Your task to perform on an android device: Search for logitech g pro on costco, select the first entry, and add it to the cart. Image 0: 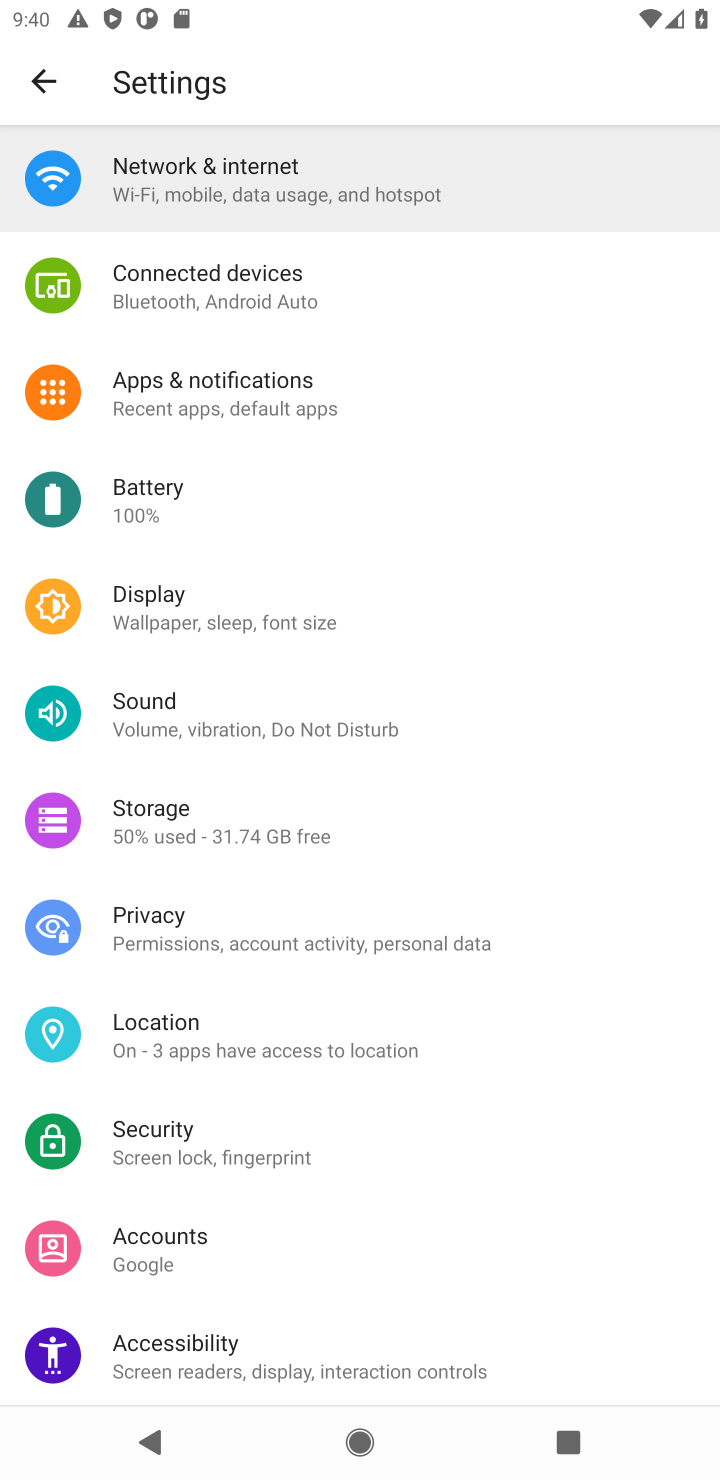
Step 0: press home button
Your task to perform on an android device: Search for logitech g pro on costco, select the first entry, and add it to the cart. Image 1: 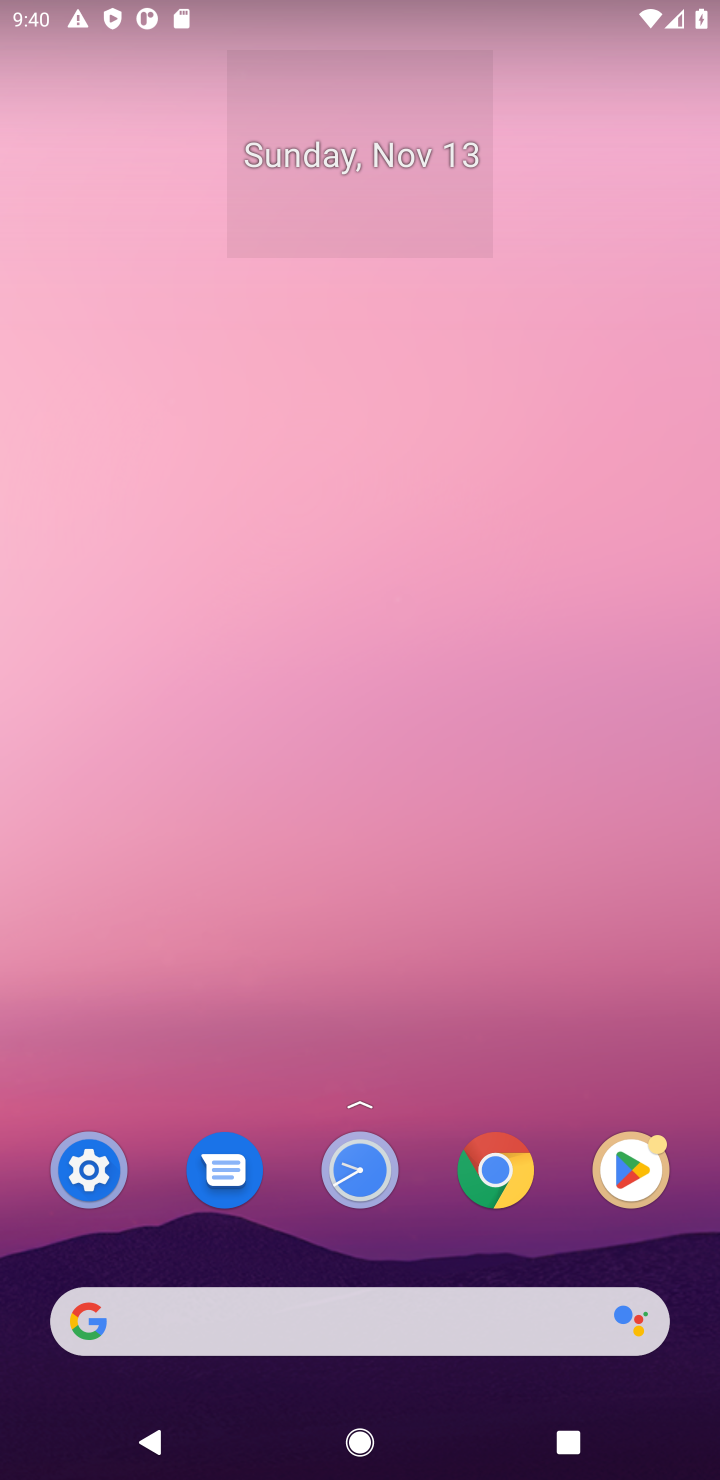
Step 1: click (283, 1349)
Your task to perform on an android device: Search for logitech g pro on costco, select the first entry, and add it to the cart. Image 2: 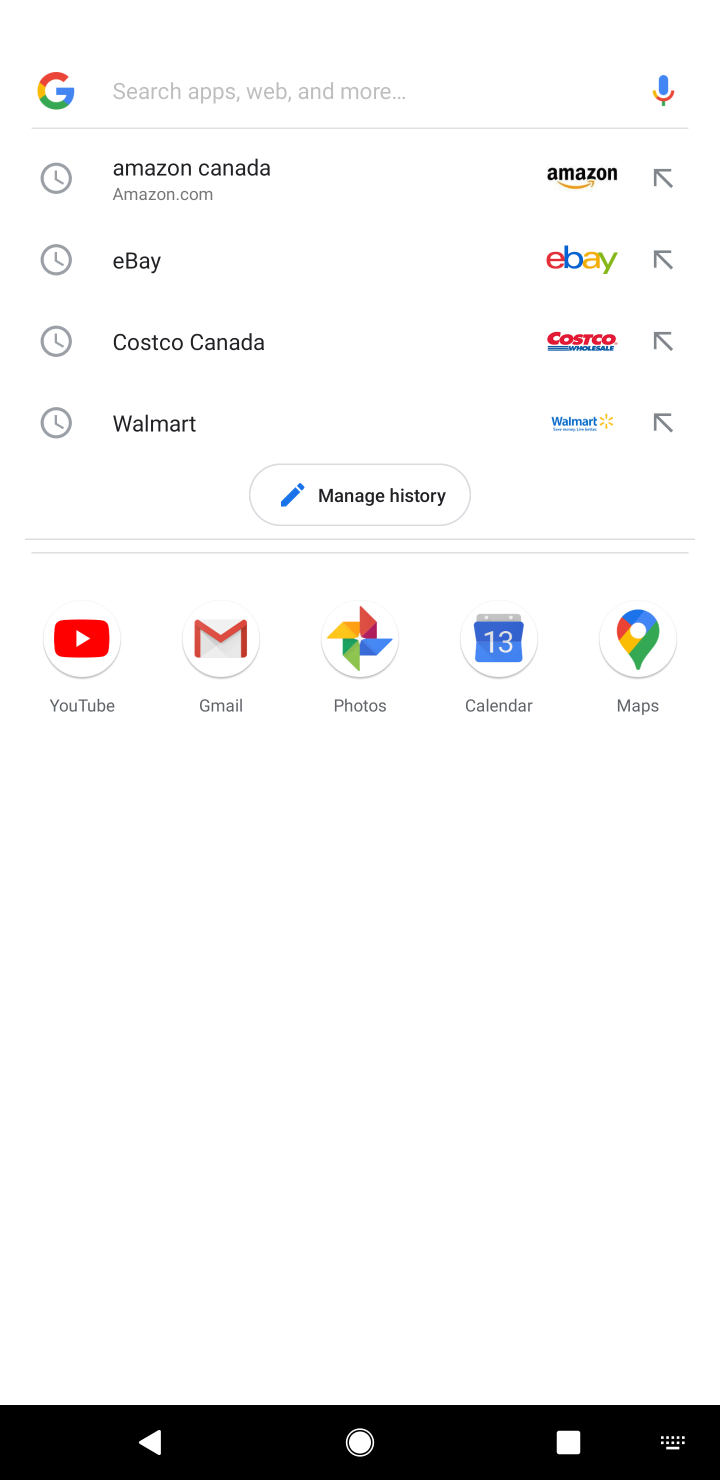
Step 2: type "costco.com"
Your task to perform on an android device: Search for logitech g pro on costco, select the first entry, and add it to the cart. Image 3: 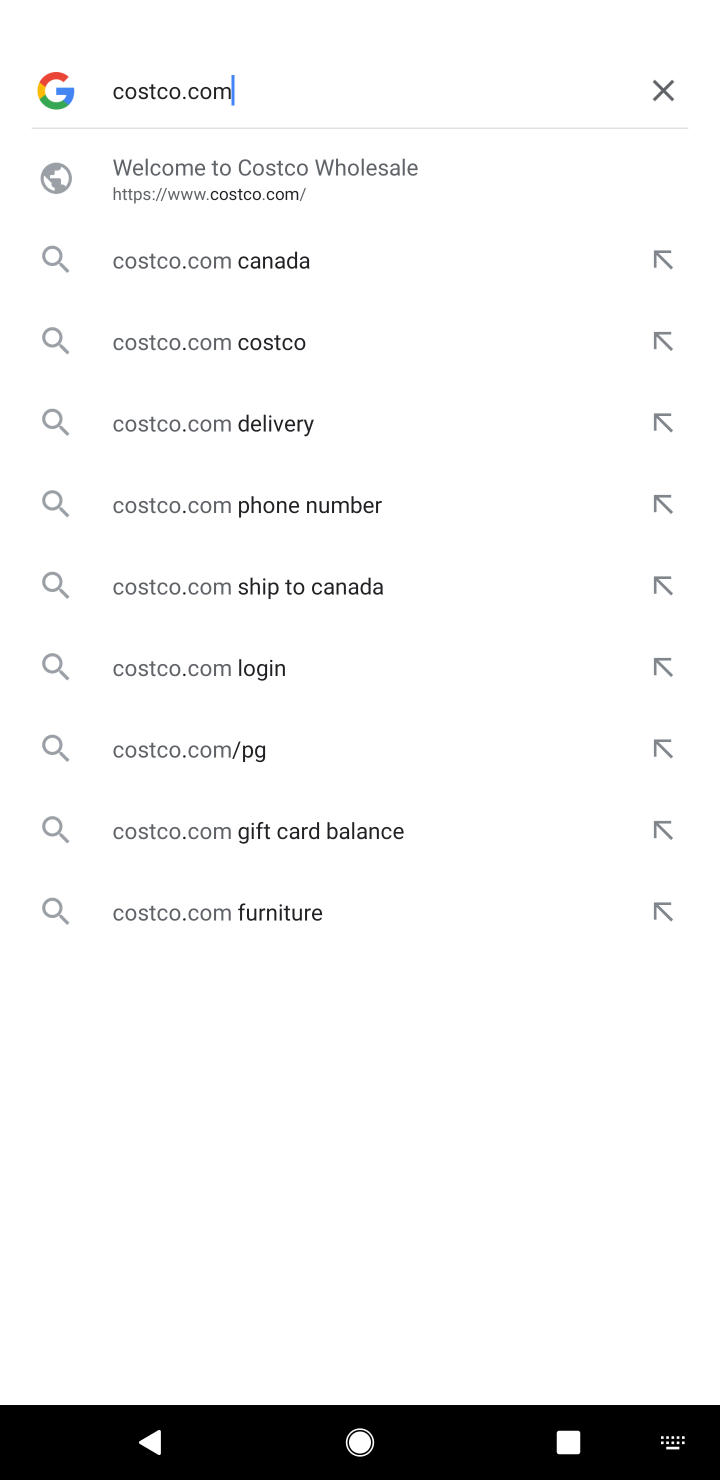
Step 3: click (341, 220)
Your task to perform on an android device: Search for logitech g pro on costco, select the first entry, and add it to the cart. Image 4: 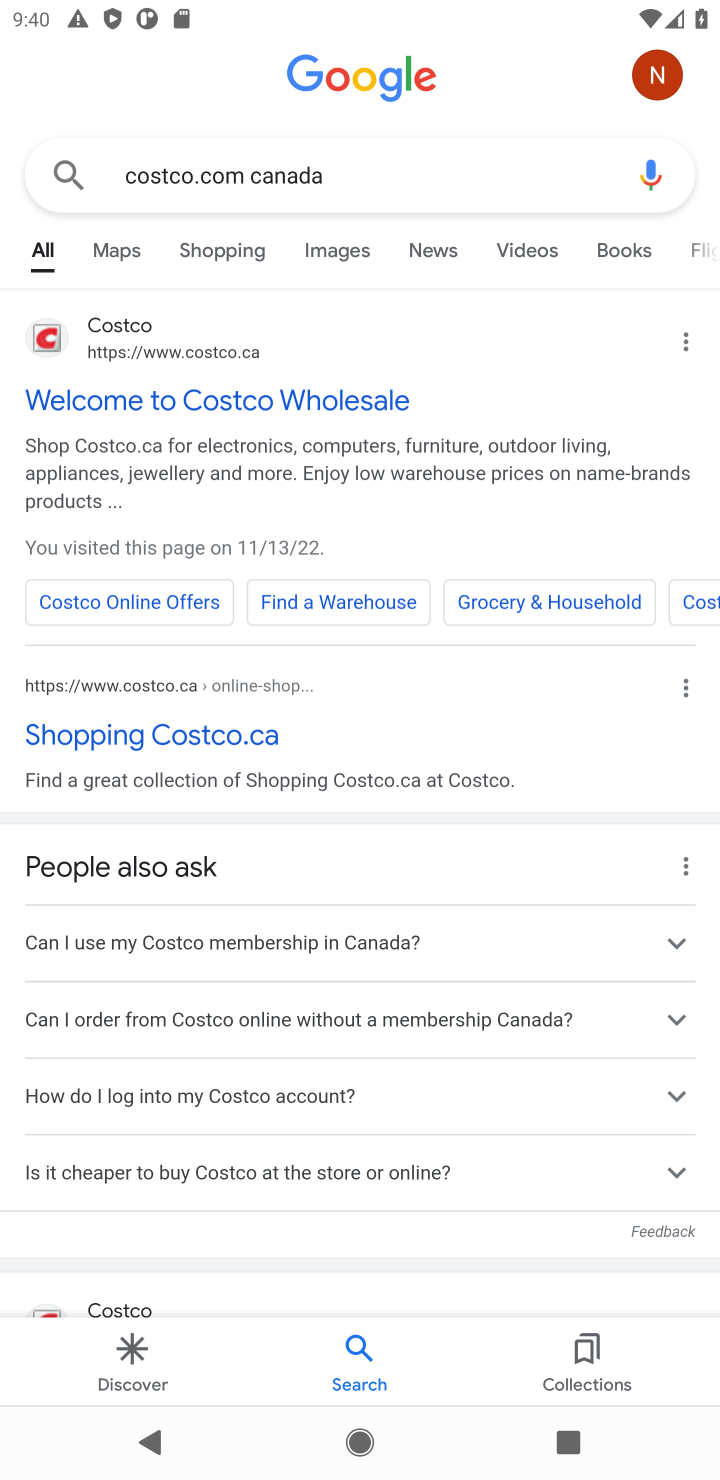
Step 4: click (226, 421)
Your task to perform on an android device: Search for logitech g pro on costco, select the first entry, and add it to the cart. Image 5: 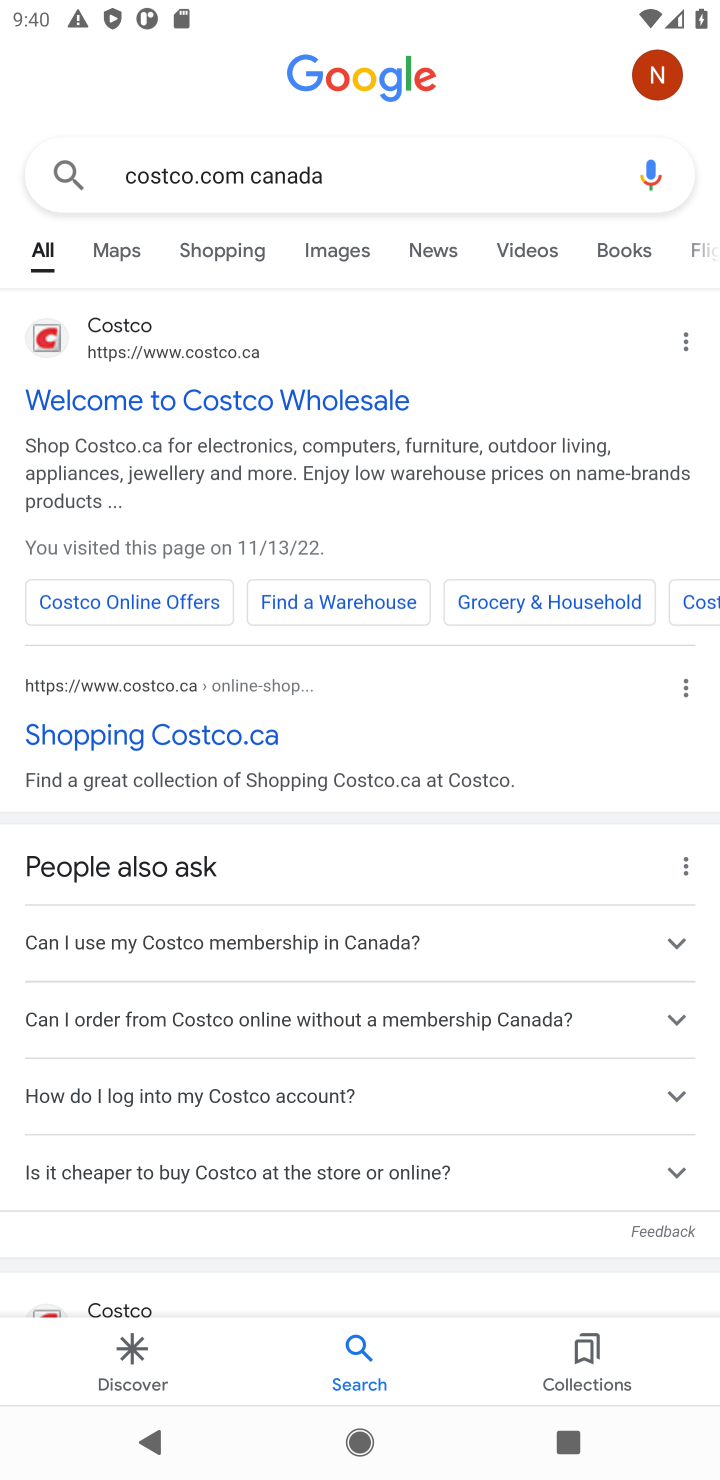
Step 5: click (260, 421)
Your task to perform on an android device: Search for logitech g pro on costco, select the first entry, and add it to the cart. Image 6: 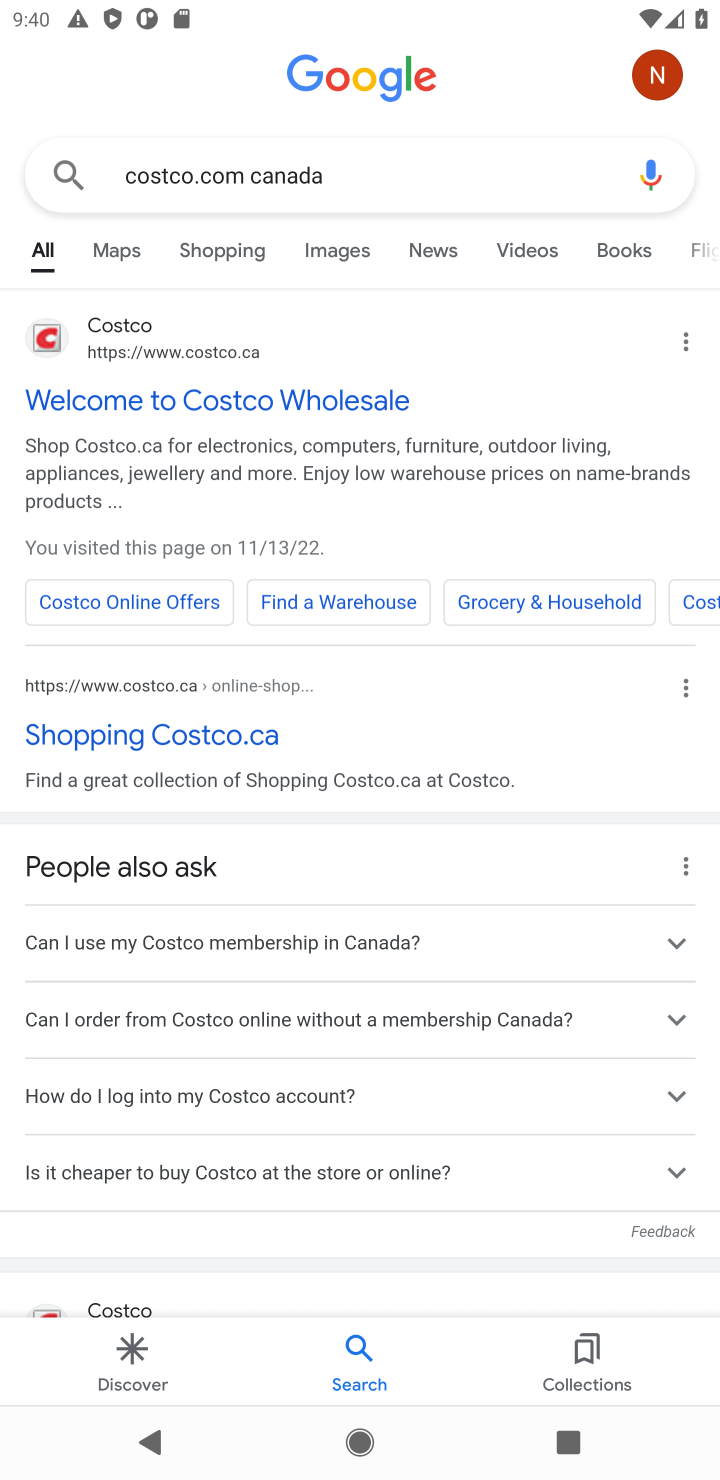
Step 6: task complete